Your task to perform on an android device: turn on priority inbox in the gmail app Image 0: 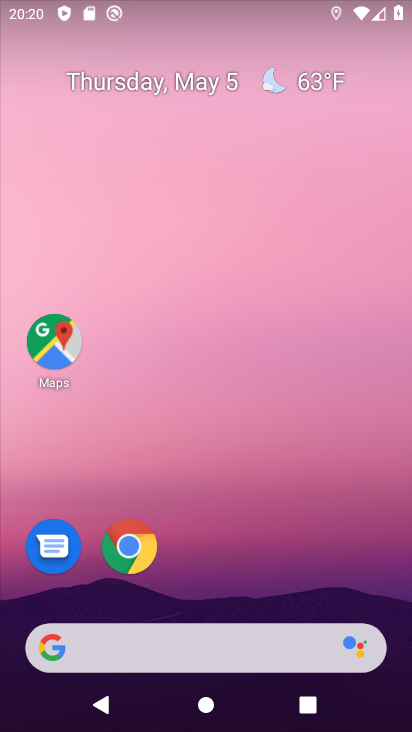
Step 0: drag from (287, 586) to (234, 133)
Your task to perform on an android device: turn on priority inbox in the gmail app Image 1: 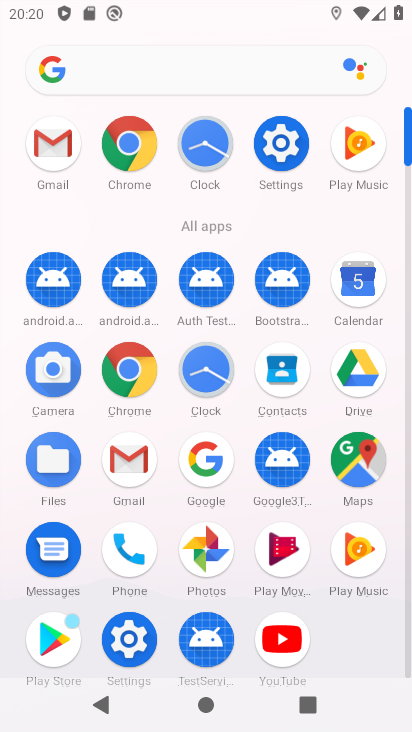
Step 1: click (46, 149)
Your task to perform on an android device: turn on priority inbox in the gmail app Image 2: 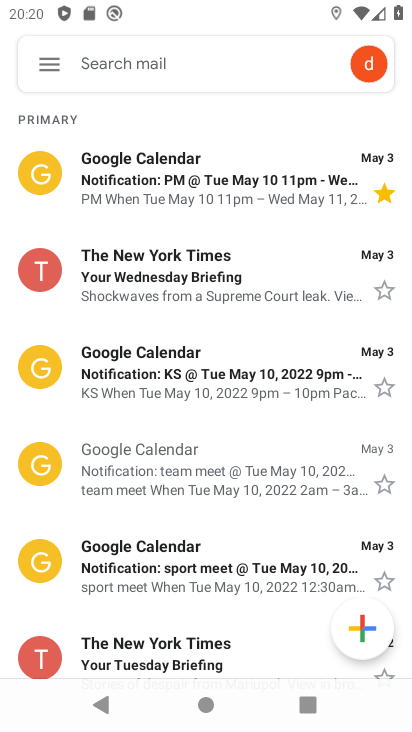
Step 2: click (49, 62)
Your task to perform on an android device: turn on priority inbox in the gmail app Image 3: 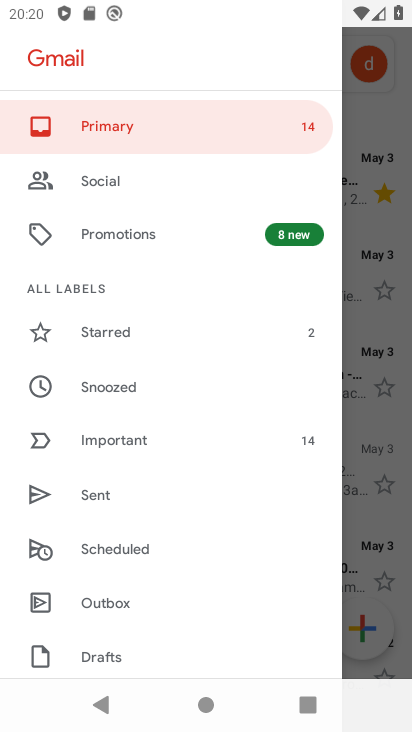
Step 3: drag from (127, 550) to (125, 282)
Your task to perform on an android device: turn on priority inbox in the gmail app Image 4: 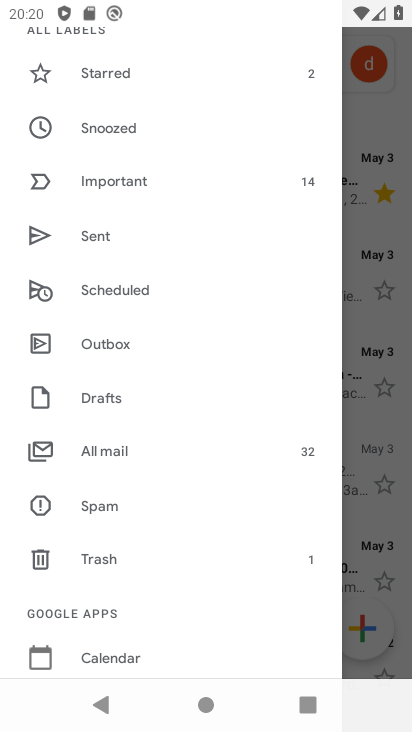
Step 4: drag from (121, 390) to (103, 206)
Your task to perform on an android device: turn on priority inbox in the gmail app Image 5: 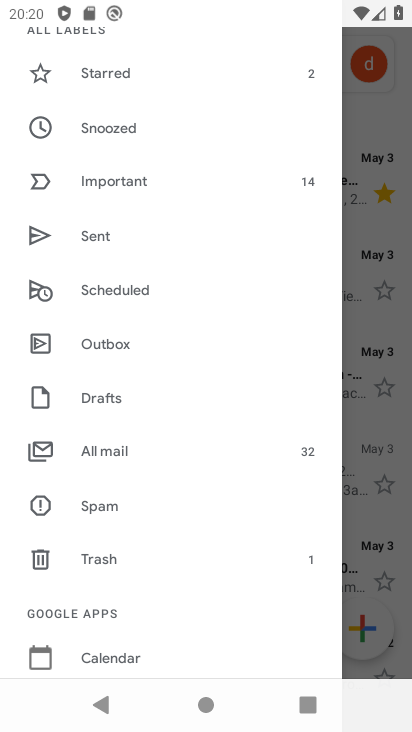
Step 5: drag from (127, 591) to (140, 207)
Your task to perform on an android device: turn on priority inbox in the gmail app Image 6: 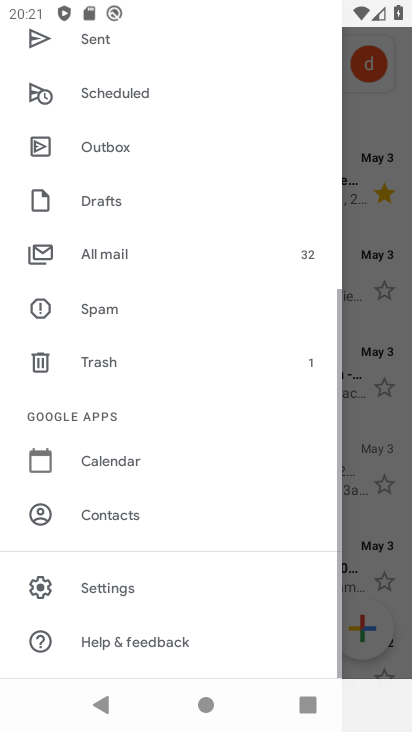
Step 6: drag from (216, 499) to (203, 63)
Your task to perform on an android device: turn on priority inbox in the gmail app Image 7: 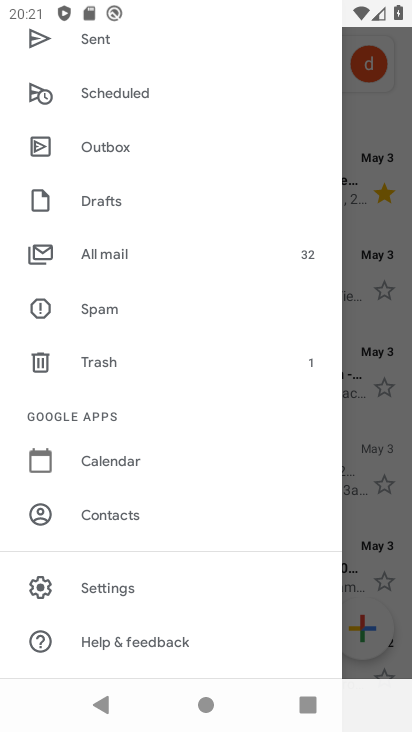
Step 7: click (114, 589)
Your task to perform on an android device: turn on priority inbox in the gmail app Image 8: 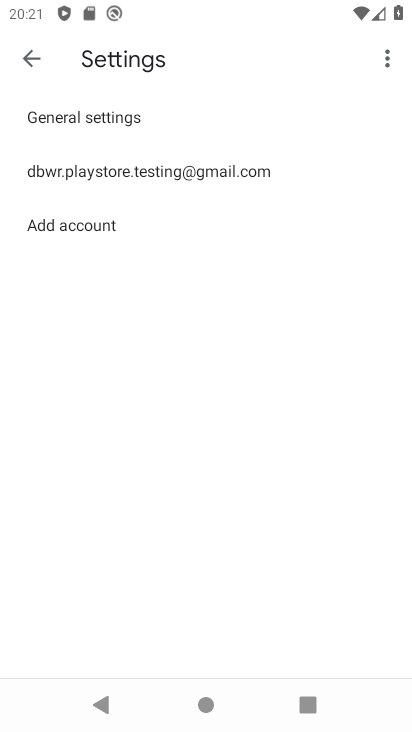
Step 8: click (65, 170)
Your task to perform on an android device: turn on priority inbox in the gmail app Image 9: 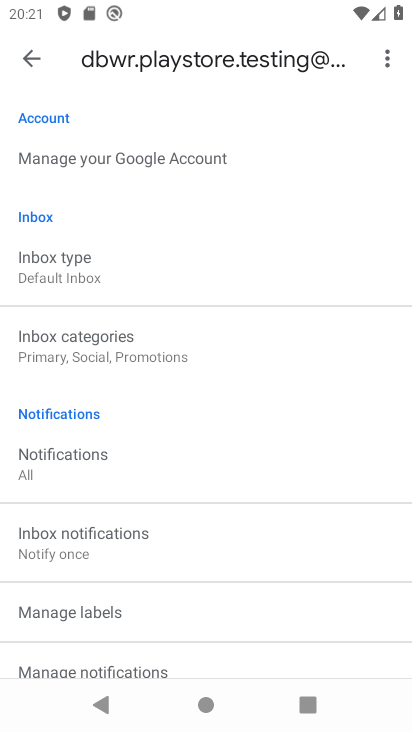
Step 9: click (56, 267)
Your task to perform on an android device: turn on priority inbox in the gmail app Image 10: 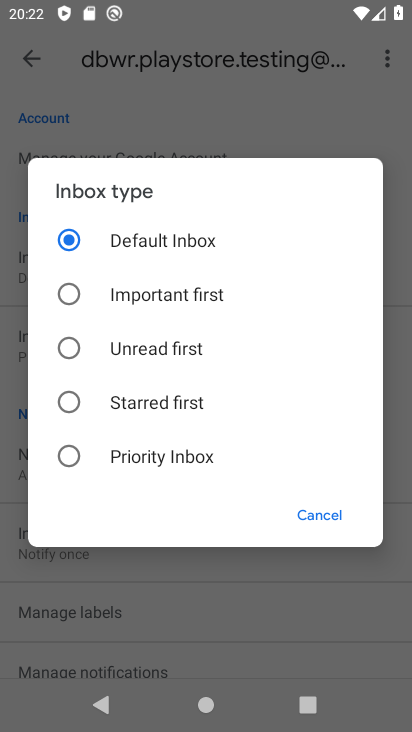
Step 10: click (73, 451)
Your task to perform on an android device: turn on priority inbox in the gmail app Image 11: 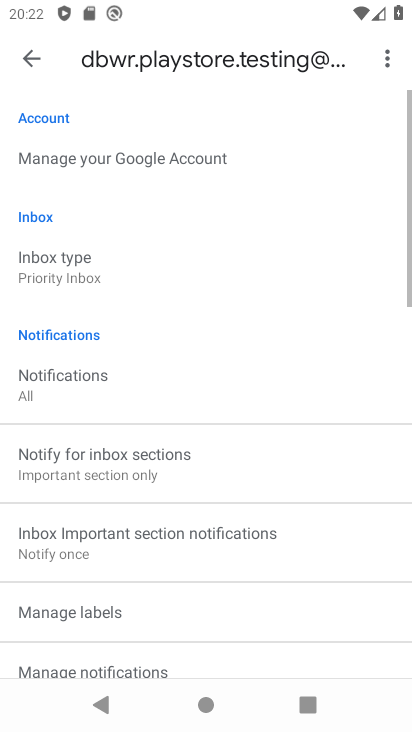
Step 11: click (122, 455)
Your task to perform on an android device: turn on priority inbox in the gmail app Image 12: 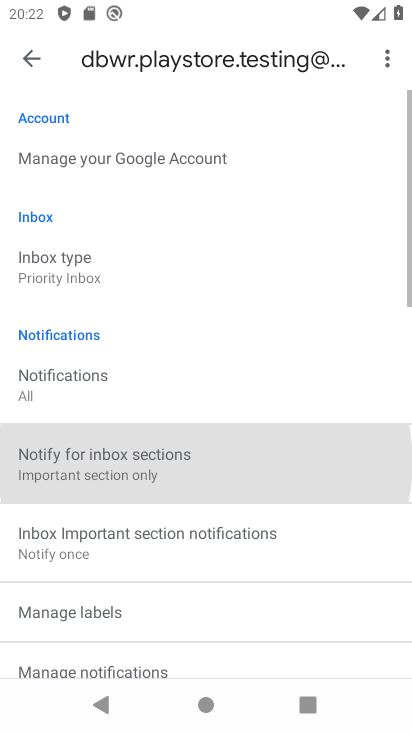
Step 12: click (68, 455)
Your task to perform on an android device: turn on priority inbox in the gmail app Image 13: 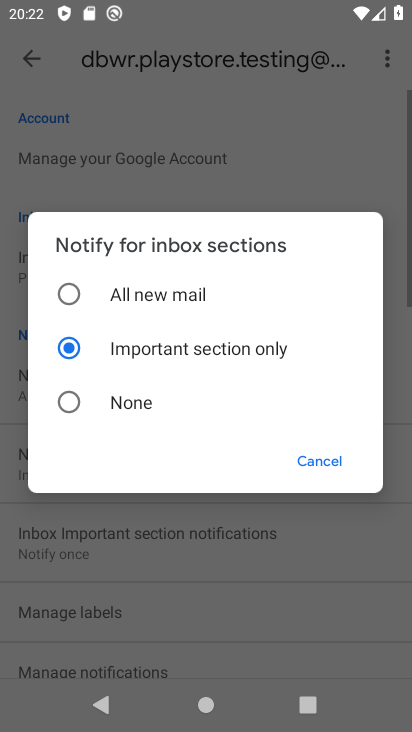
Step 13: task complete